Your task to perform on an android device: empty trash in google photos Image 0: 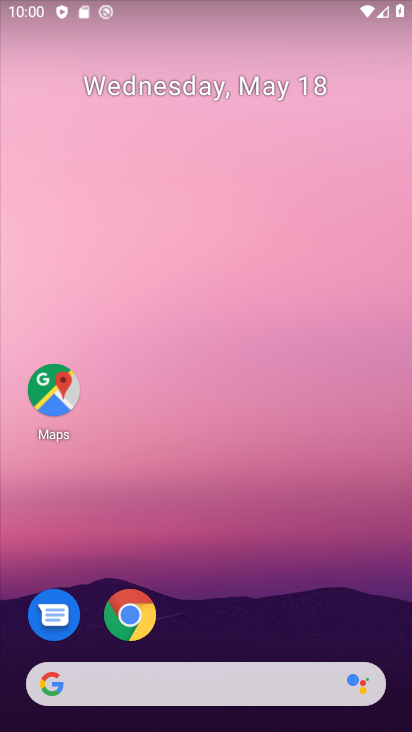
Step 0: drag from (205, 657) to (339, 57)
Your task to perform on an android device: empty trash in google photos Image 1: 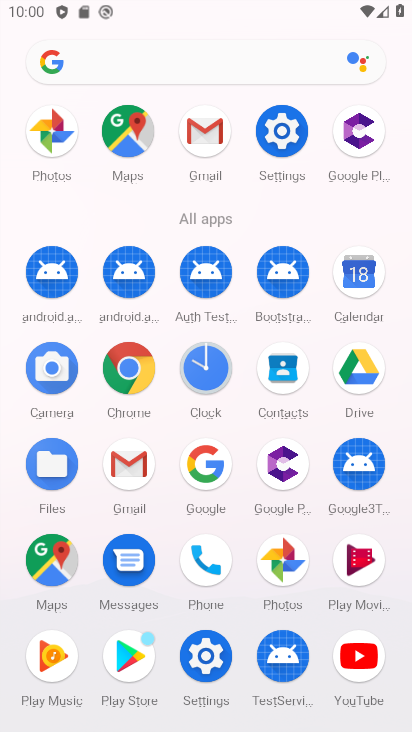
Step 1: click (54, 135)
Your task to perform on an android device: empty trash in google photos Image 2: 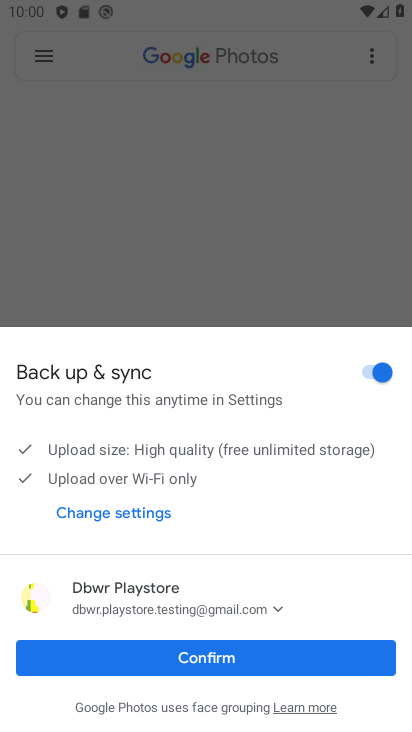
Step 2: click (197, 671)
Your task to perform on an android device: empty trash in google photos Image 3: 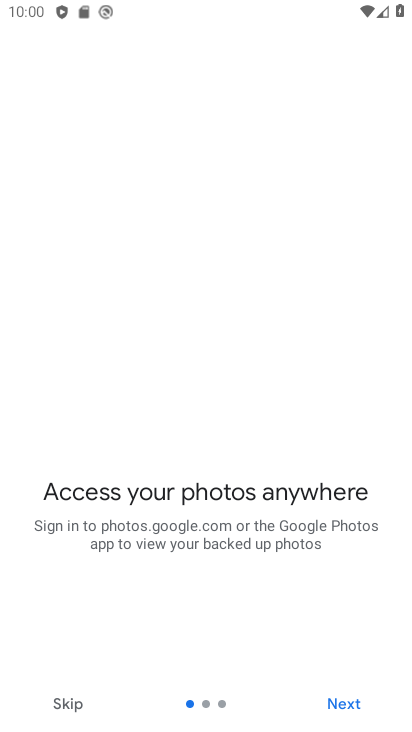
Step 3: click (328, 706)
Your task to perform on an android device: empty trash in google photos Image 4: 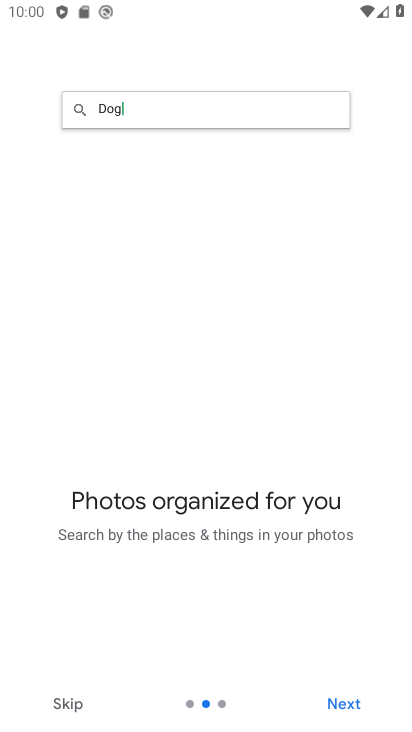
Step 4: click (328, 706)
Your task to perform on an android device: empty trash in google photos Image 5: 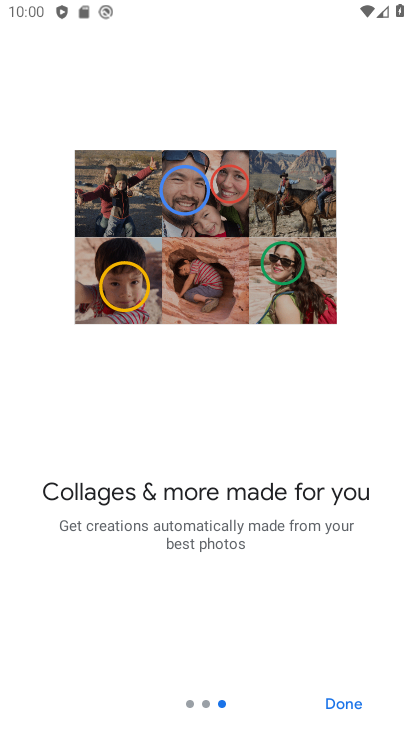
Step 5: click (328, 706)
Your task to perform on an android device: empty trash in google photos Image 6: 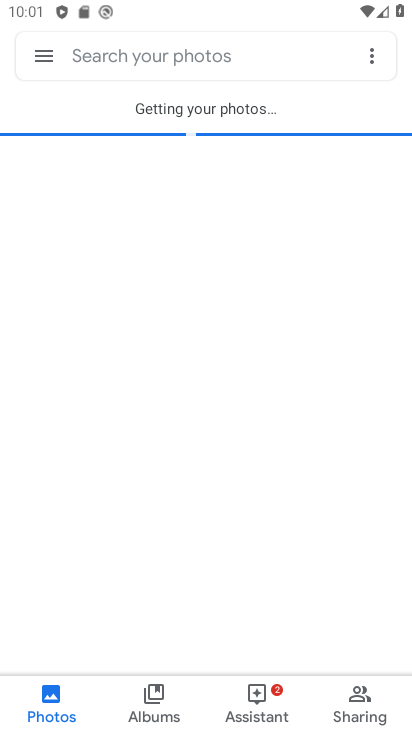
Step 6: click (33, 46)
Your task to perform on an android device: empty trash in google photos Image 7: 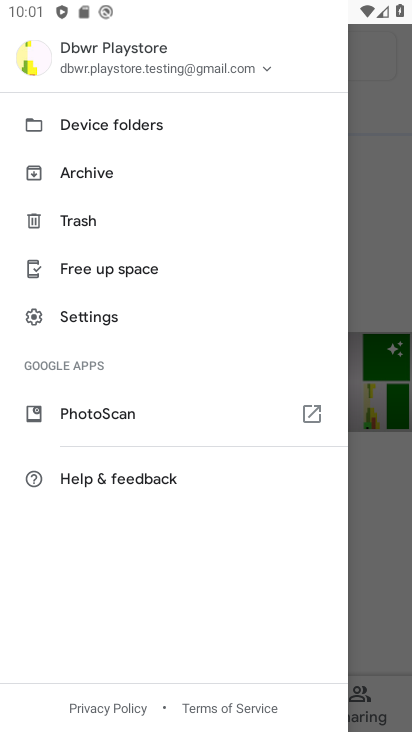
Step 7: click (57, 215)
Your task to perform on an android device: empty trash in google photos Image 8: 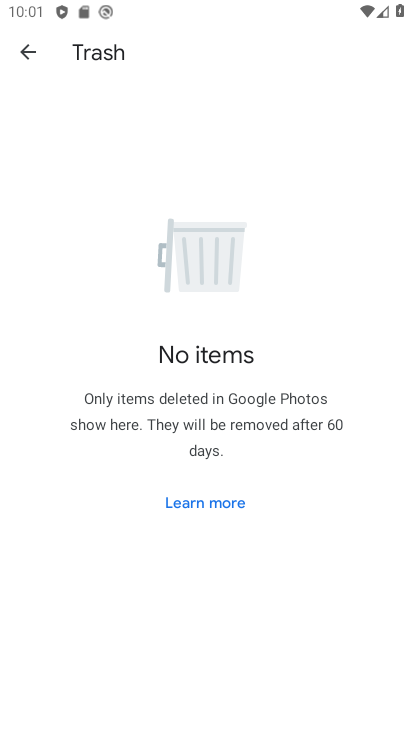
Step 8: task complete